Your task to perform on an android device: Is it going to rain this weekend? Image 0: 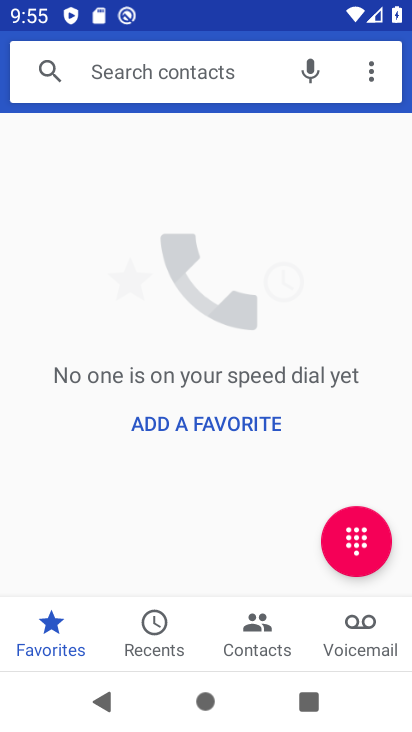
Step 0: press home button
Your task to perform on an android device: Is it going to rain this weekend? Image 1: 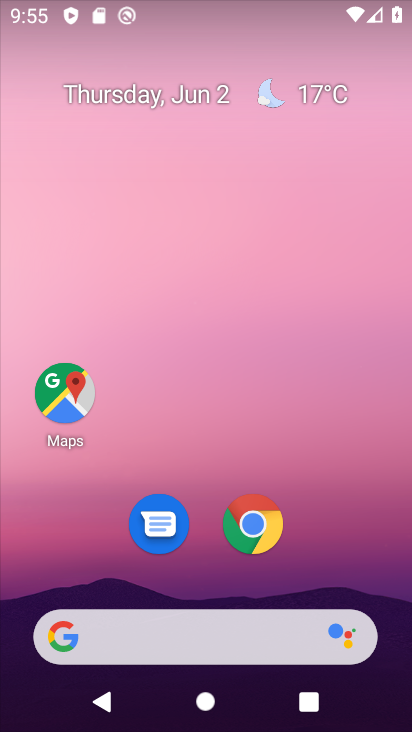
Step 1: click (291, 86)
Your task to perform on an android device: Is it going to rain this weekend? Image 2: 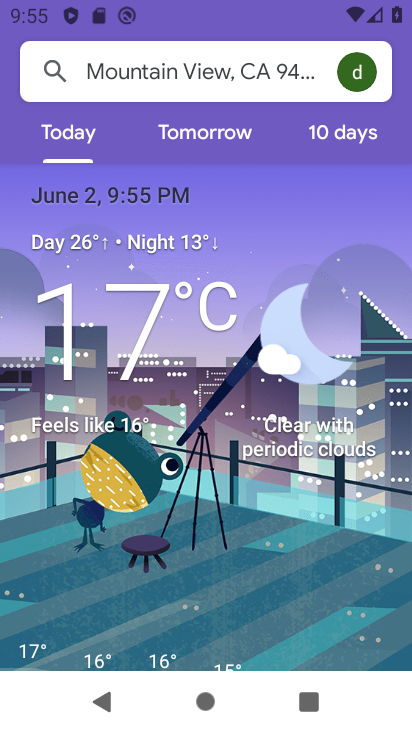
Step 2: click (343, 140)
Your task to perform on an android device: Is it going to rain this weekend? Image 3: 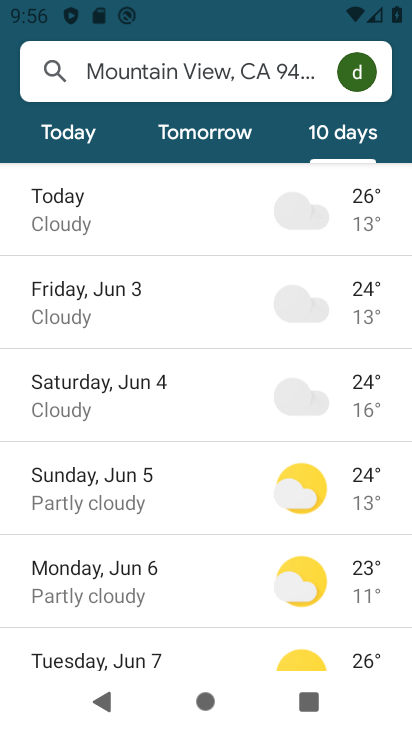
Step 3: click (136, 386)
Your task to perform on an android device: Is it going to rain this weekend? Image 4: 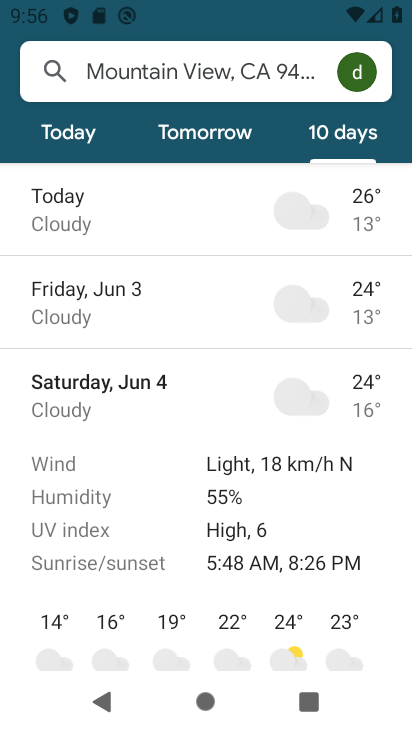
Step 4: task complete